Your task to perform on an android device: toggle translation in the chrome app Image 0: 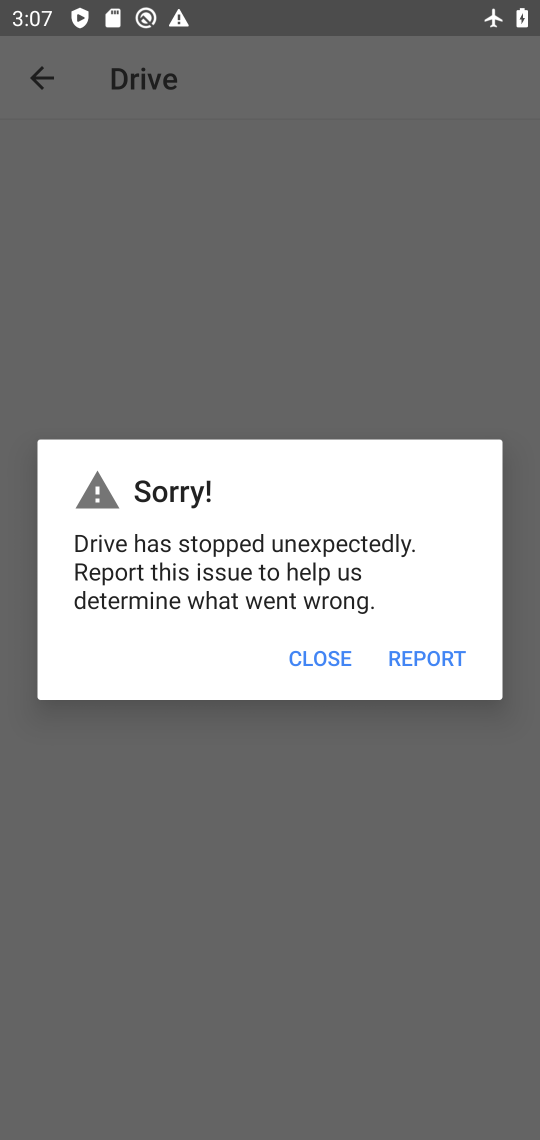
Step 0: press home button
Your task to perform on an android device: toggle translation in the chrome app Image 1: 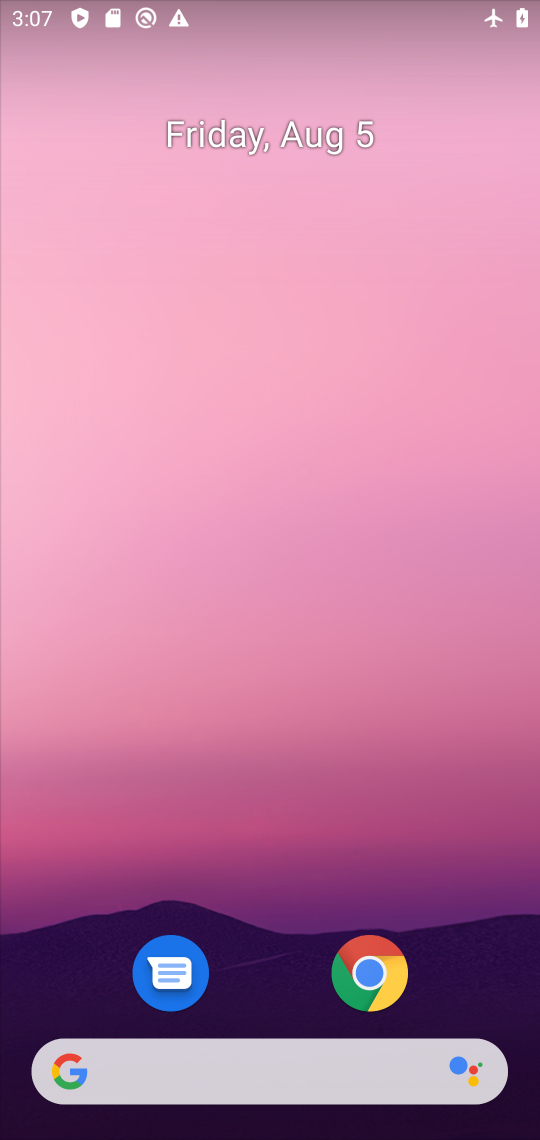
Step 1: drag from (252, 1029) to (180, 154)
Your task to perform on an android device: toggle translation in the chrome app Image 2: 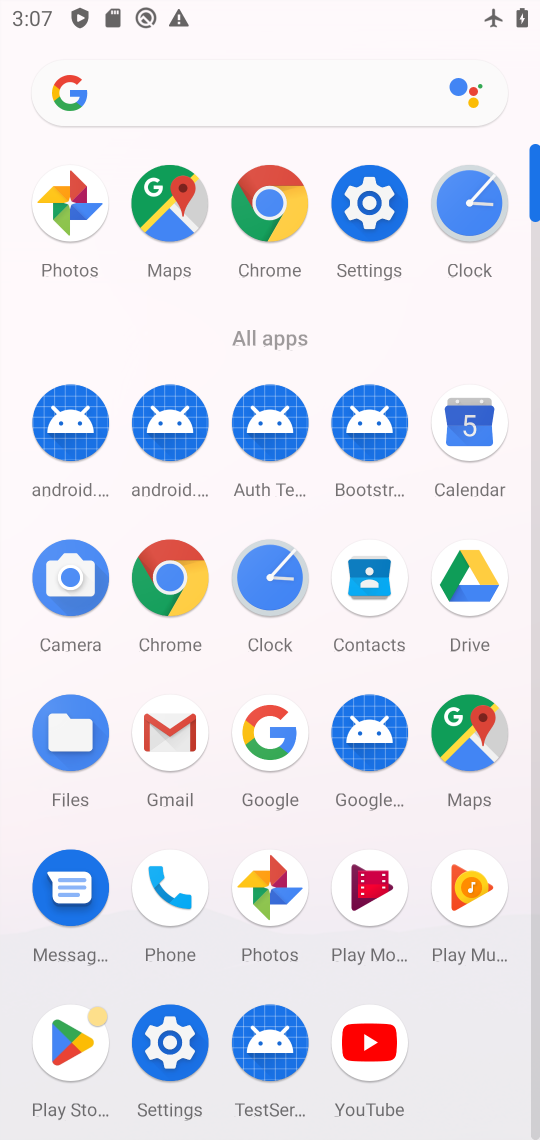
Step 2: click (172, 599)
Your task to perform on an android device: toggle translation in the chrome app Image 3: 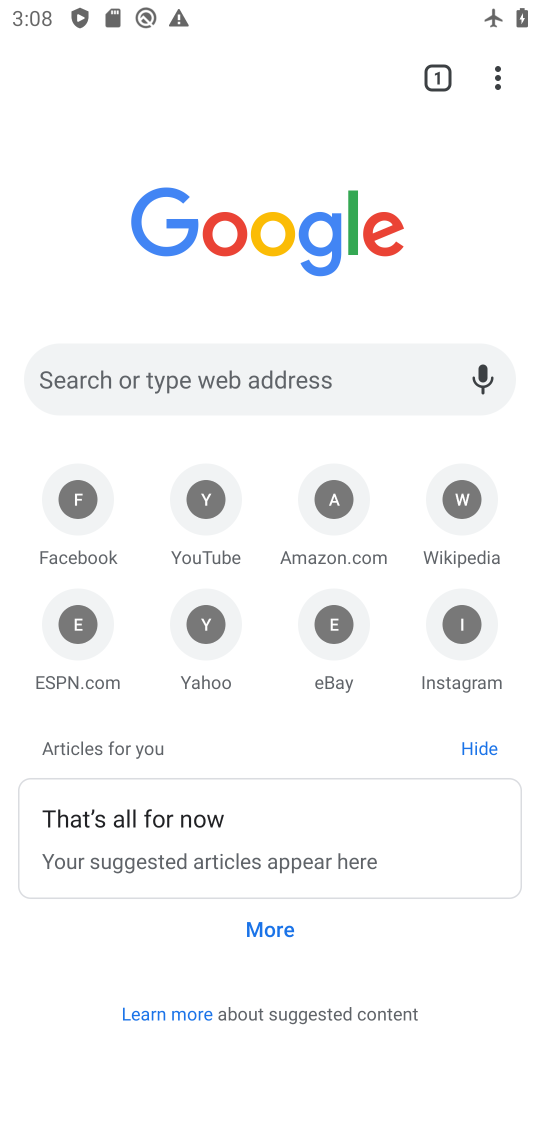
Step 3: drag from (492, 72) to (239, 651)
Your task to perform on an android device: toggle translation in the chrome app Image 4: 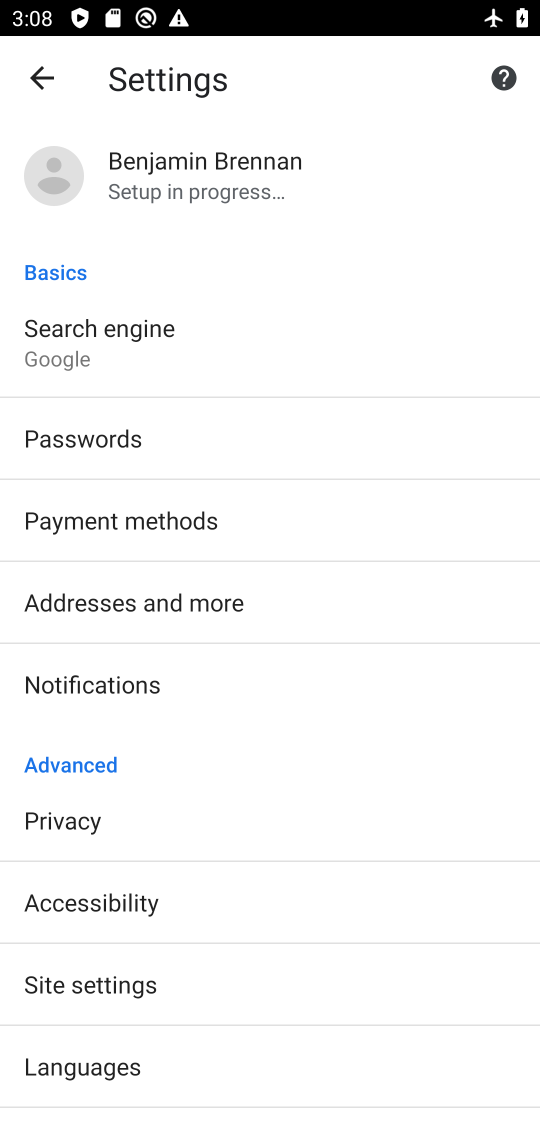
Step 4: click (137, 973)
Your task to perform on an android device: toggle translation in the chrome app Image 5: 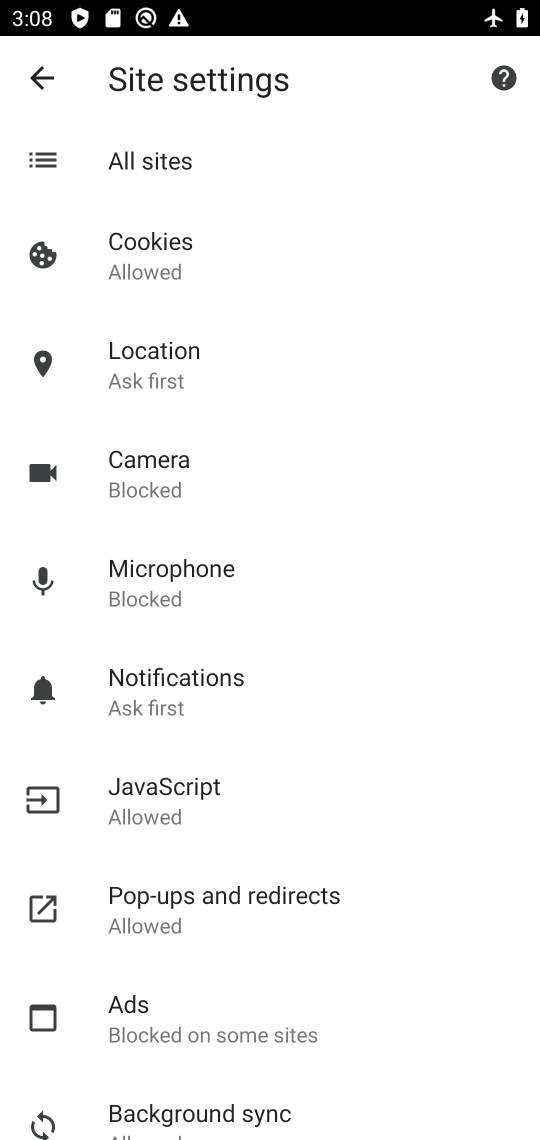
Step 5: click (42, 59)
Your task to perform on an android device: toggle translation in the chrome app Image 6: 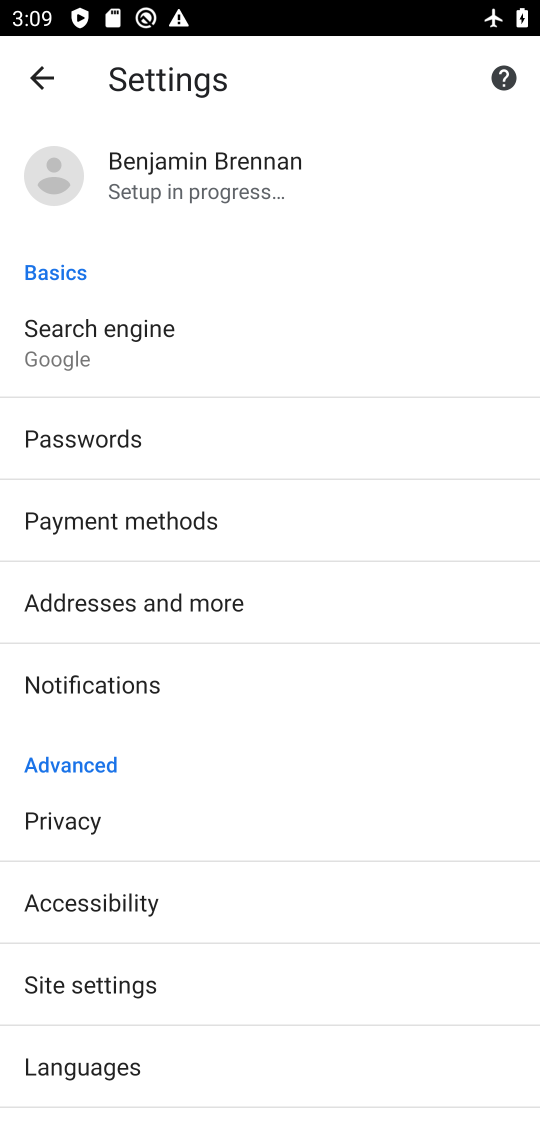
Step 6: drag from (196, 891) to (267, 109)
Your task to perform on an android device: toggle translation in the chrome app Image 7: 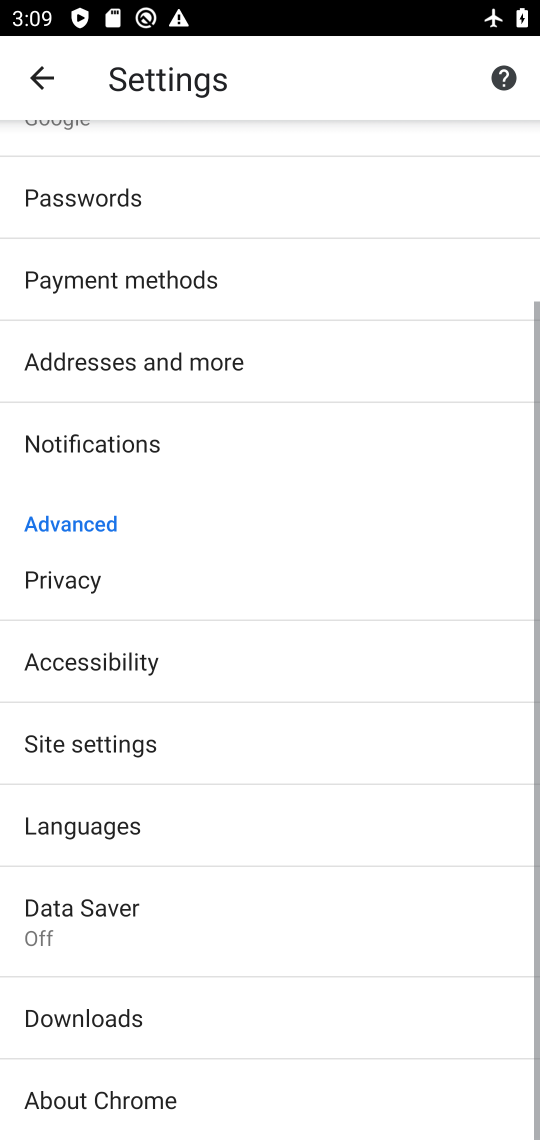
Step 7: click (114, 834)
Your task to perform on an android device: toggle translation in the chrome app Image 8: 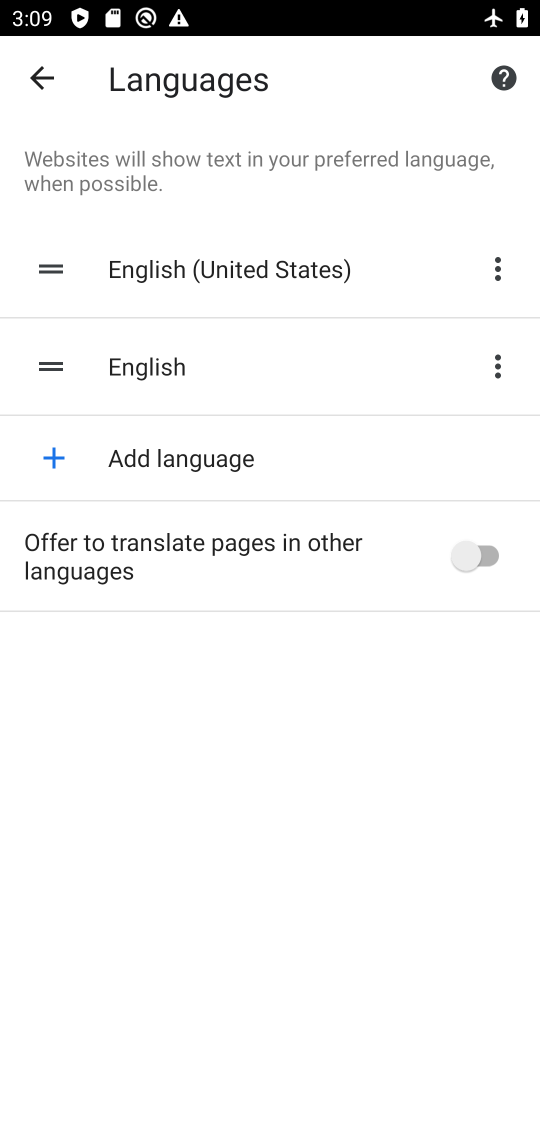
Step 8: click (487, 547)
Your task to perform on an android device: toggle translation in the chrome app Image 9: 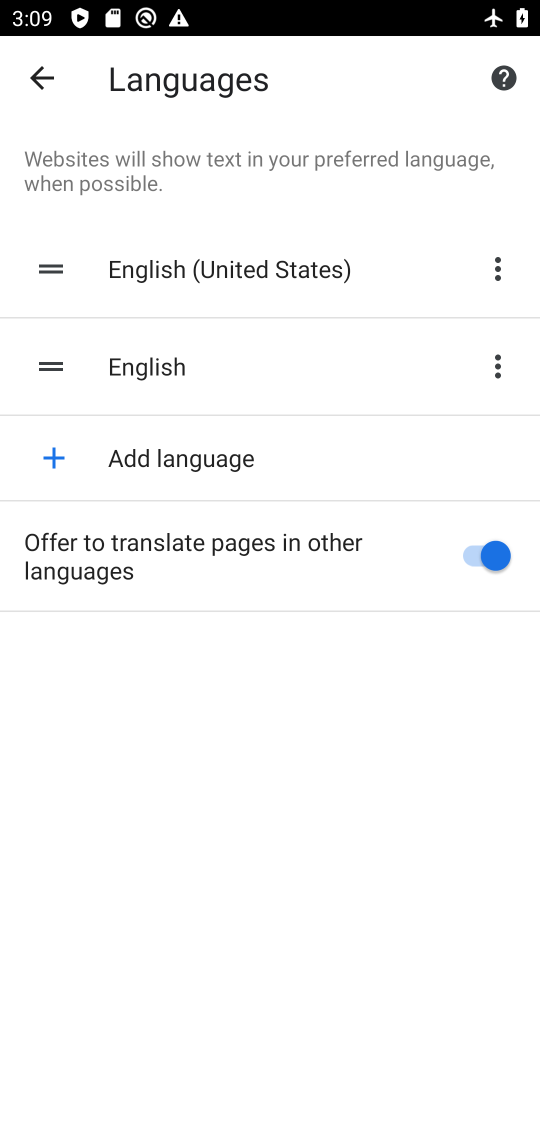
Step 9: task complete